Your task to perform on an android device: add a contact in the contacts app Image 0: 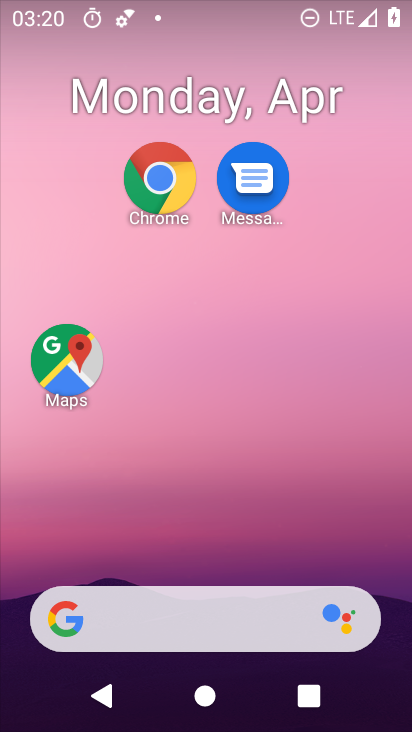
Step 0: drag from (200, 470) to (164, 21)
Your task to perform on an android device: add a contact in the contacts app Image 1: 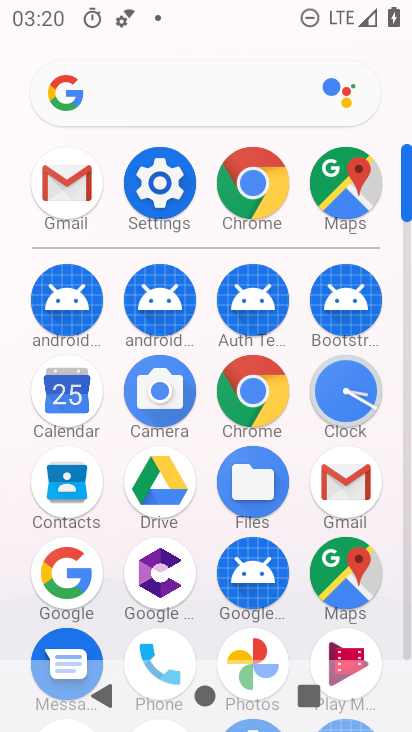
Step 1: click (72, 488)
Your task to perform on an android device: add a contact in the contacts app Image 2: 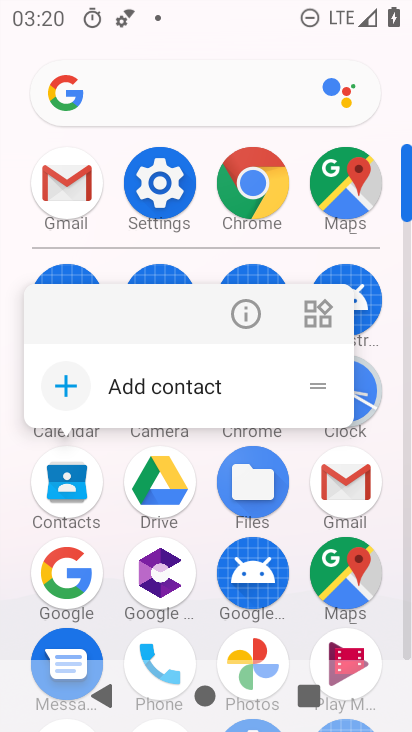
Step 2: click (72, 488)
Your task to perform on an android device: add a contact in the contacts app Image 3: 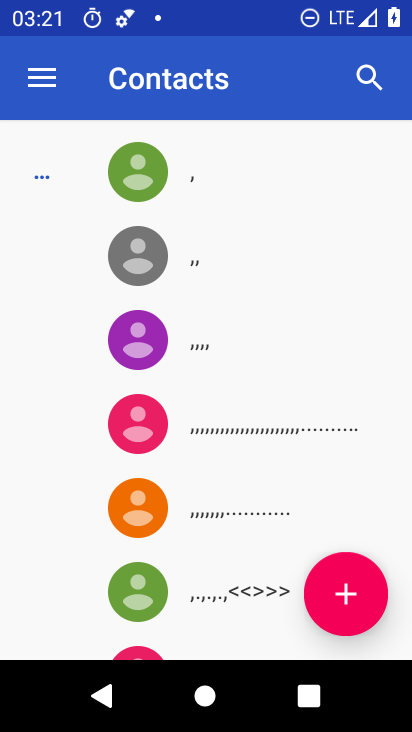
Step 3: click (356, 618)
Your task to perform on an android device: add a contact in the contacts app Image 4: 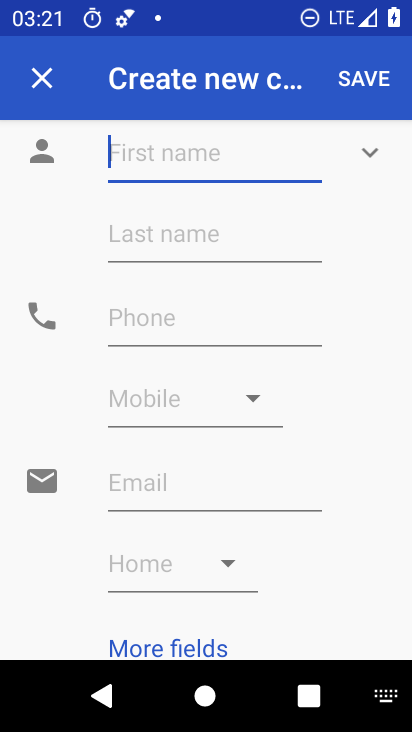
Step 4: type "djfgghgkjgkjg"
Your task to perform on an android device: add a contact in the contacts app Image 5: 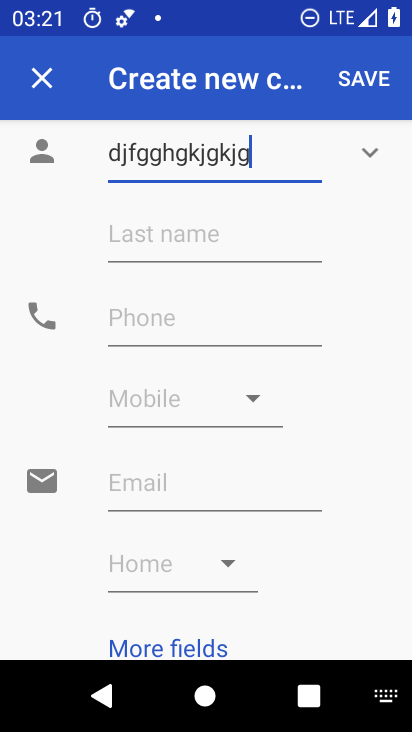
Step 5: click (220, 333)
Your task to perform on an android device: add a contact in the contacts app Image 6: 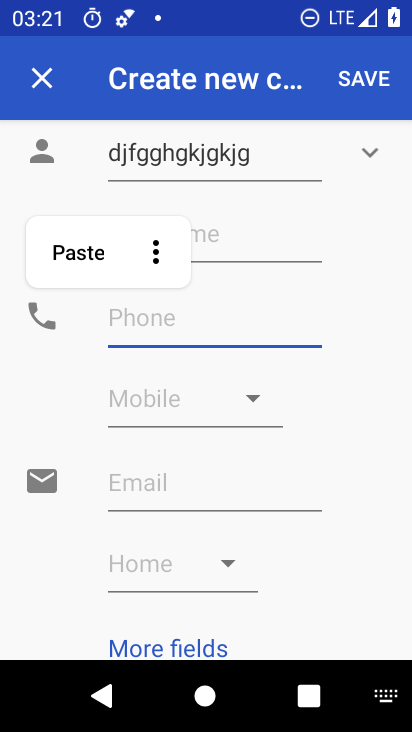
Step 6: type "78587676876"
Your task to perform on an android device: add a contact in the contacts app Image 7: 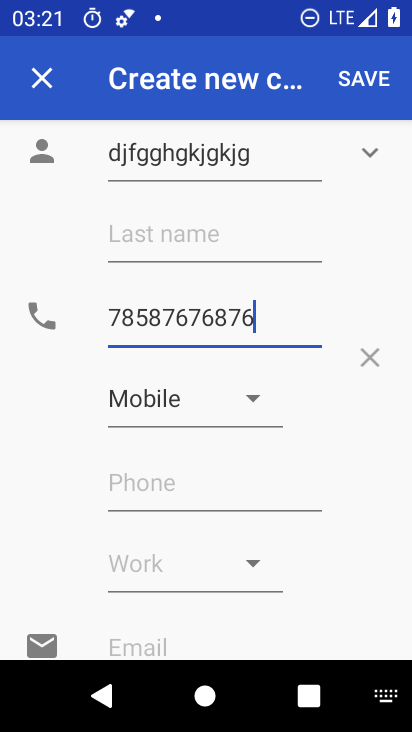
Step 7: click (363, 75)
Your task to perform on an android device: add a contact in the contacts app Image 8: 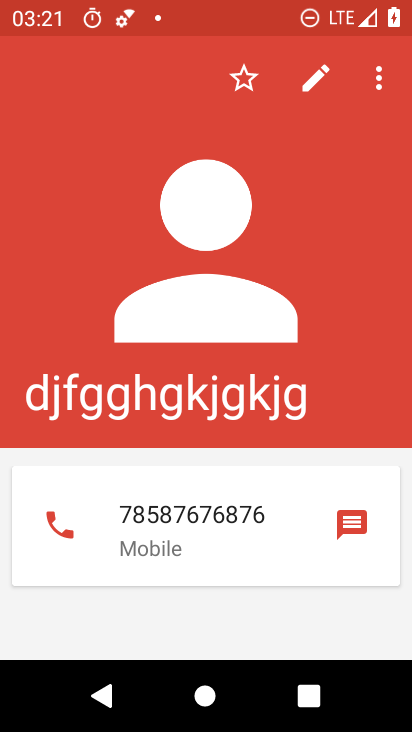
Step 8: task complete